Your task to perform on an android device: open app "Spotify: Music and Podcasts" (install if not already installed) Image 0: 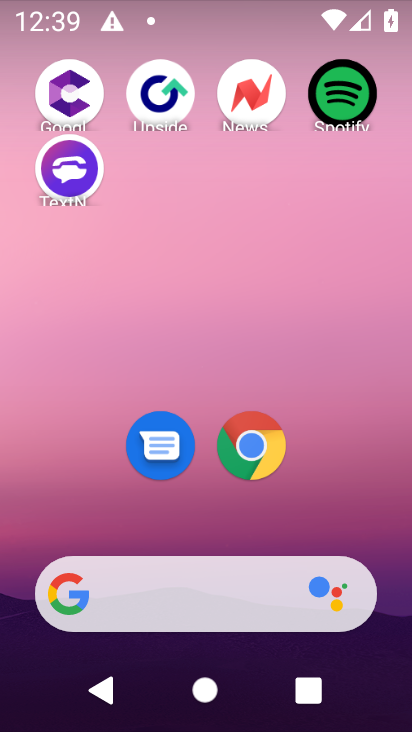
Step 0: drag from (338, 501) to (282, 228)
Your task to perform on an android device: open app "Spotify: Music and Podcasts" (install if not already installed) Image 1: 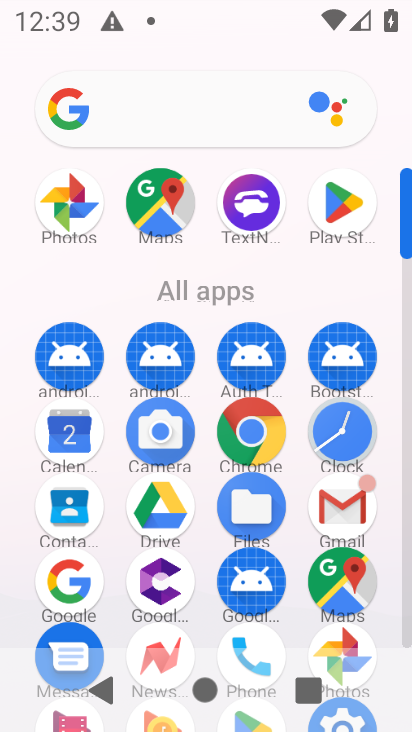
Step 1: click (322, 231)
Your task to perform on an android device: open app "Spotify: Music and Podcasts" (install if not already installed) Image 2: 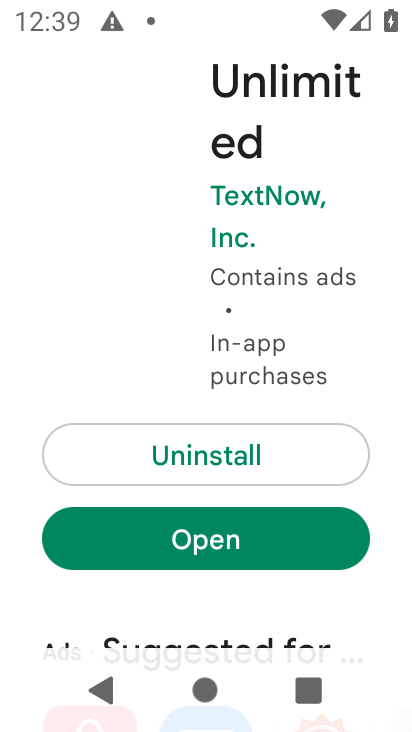
Step 2: drag from (263, 142) to (258, 403)
Your task to perform on an android device: open app "Spotify: Music and Podcasts" (install if not already installed) Image 3: 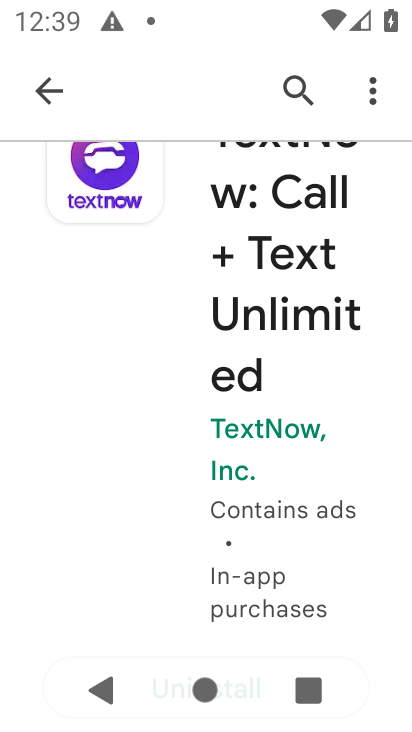
Step 3: click (296, 78)
Your task to perform on an android device: open app "Spotify: Music and Podcasts" (install if not already installed) Image 4: 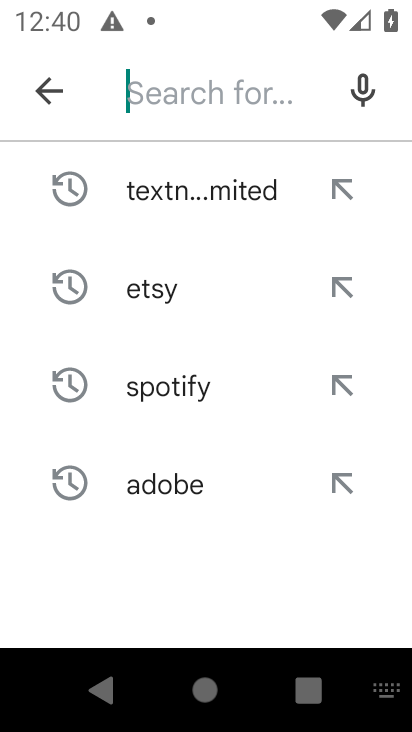
Step 4: type "spotify"
Your task to perform on an android device: open app "Spotify: Music and Podcasts" (install if not already installed) Image 5: 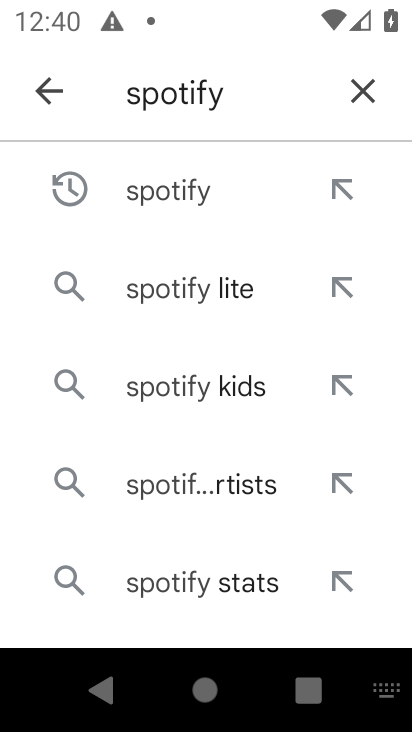
Step 5: click (203, 198)
Your task to perform on an android device: open app "Spotify: Music and Podcasts" (install if not already installed) Image 6: 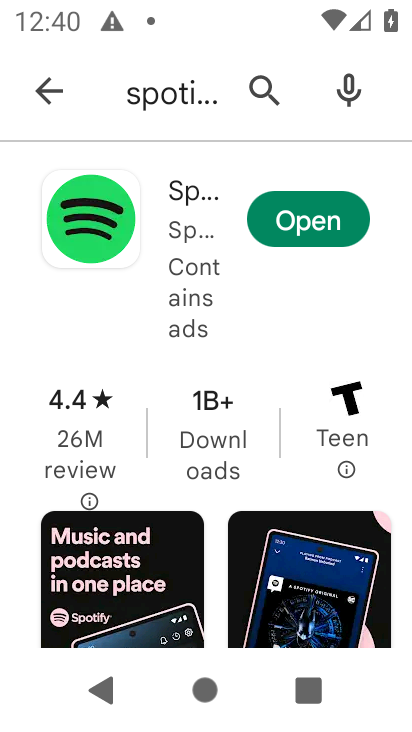
Step 6: click (292, 224)
Your task to perform on an android device: open app "Spotify: Music and Podcasts" (install if not already installed) Image 7: 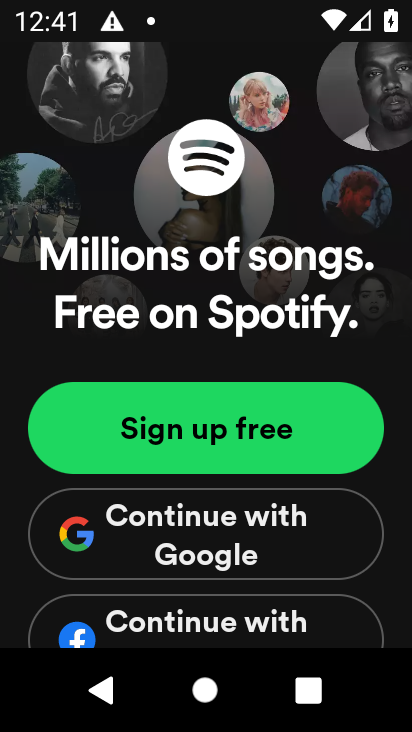
Step 7: task complete